Your task to perform on an android device: Is it going to rain today? Image 0: 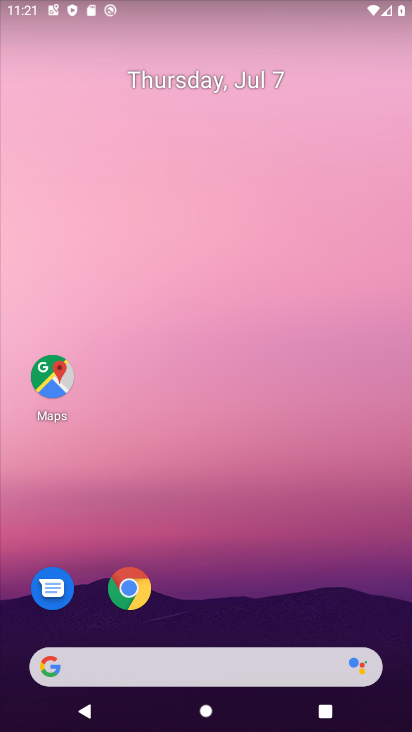
Step 0: press home button
Your task to perform on an android device: Is it going to rain today? Image 1: 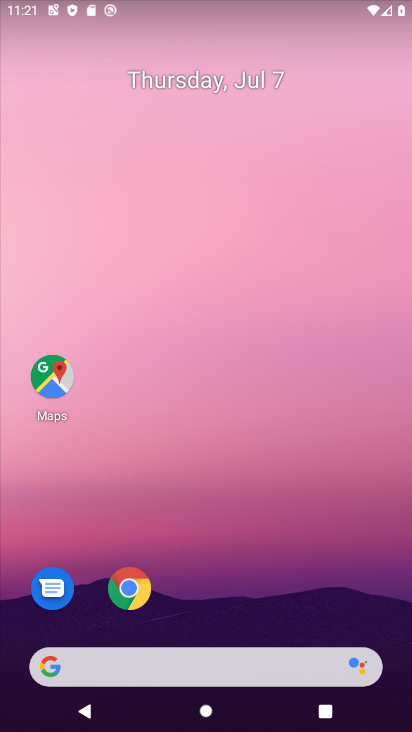
Step 1: drag from (199, 584) to (266, 103)
Your task to perform on an android device: Is it going to rain today? Image 2: 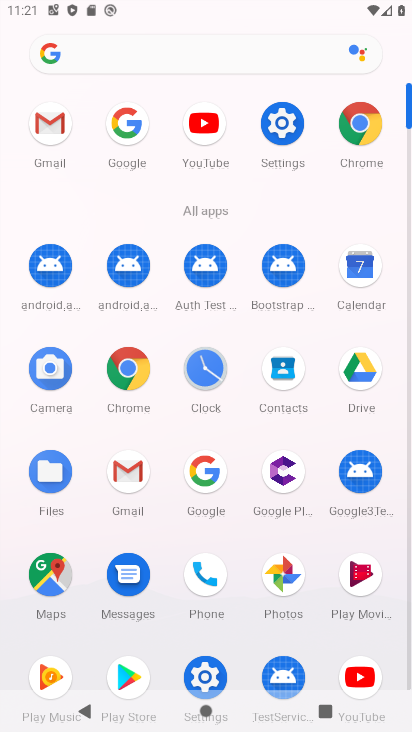
Step 2: click (201, 465)
Your task to perform on an android device: Is it going to rain today? Image 3: 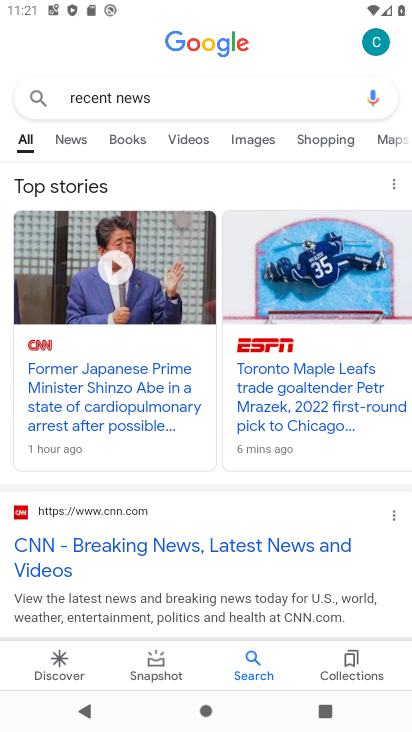
Step 3: click (199, 106)
Your task to perform on an android device: Is it going to rain today? Image 4: 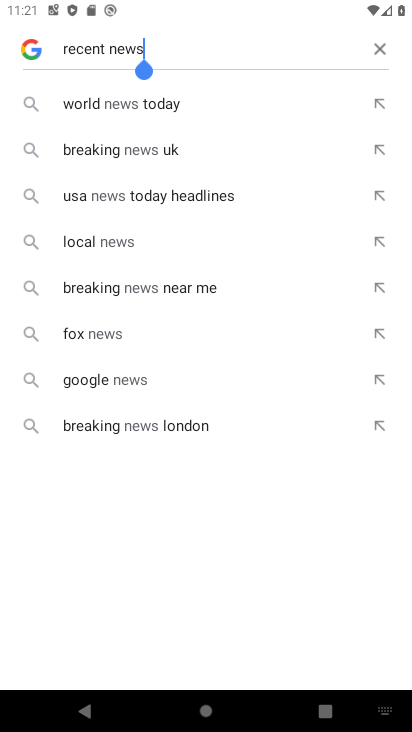
Step 4: click (373, 45)
Your task to perform on an android device: Is it going to rain today? Image 5: 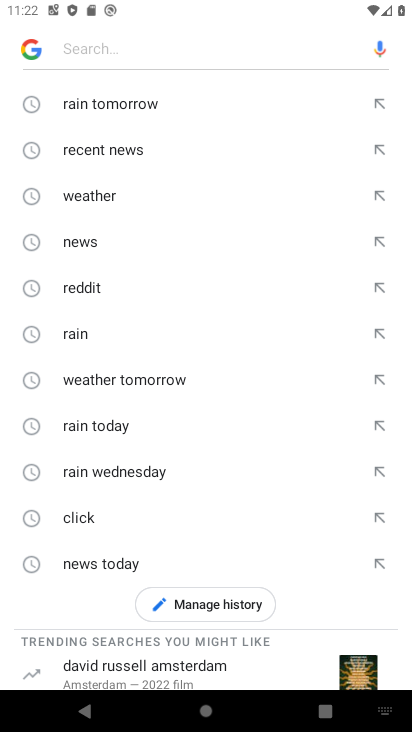
Step 5: type "is it going to rain today"
Your task to perform on an android device: Is it going to rain today? Image 6: 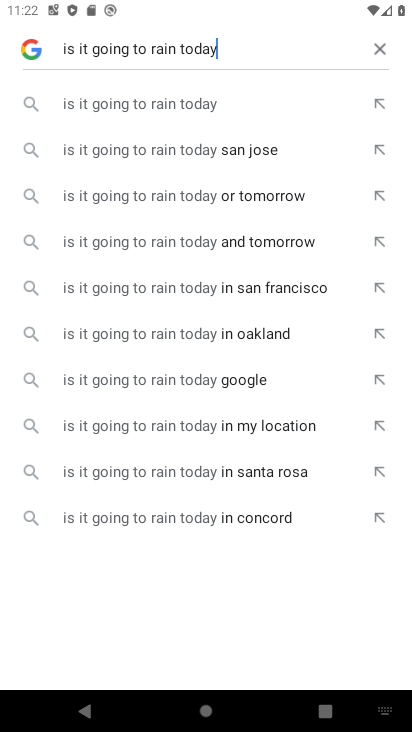
Step 6: click (197, 104)
Your task to perform on an android device: Is it going to rain today? Image 7: 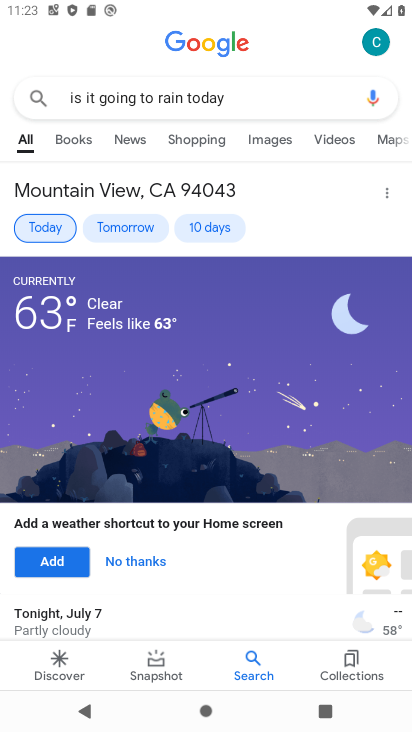
Step 7: task complete